Your task to perform on an android device: check android version Image 0: 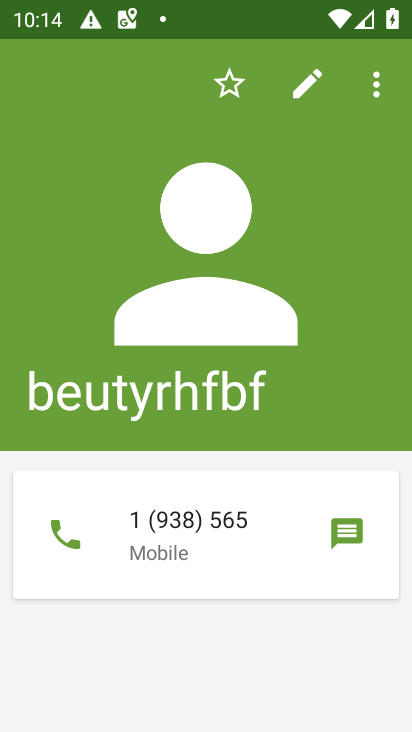
Step 0: press home button
Your task to perform on an android device: check android version Image 1: 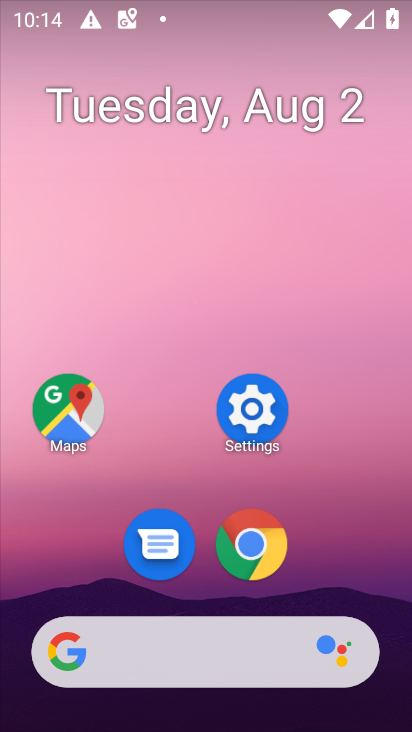
Step 1: click (251, 409)
Your task to perform on an android device: check android version Image 2: 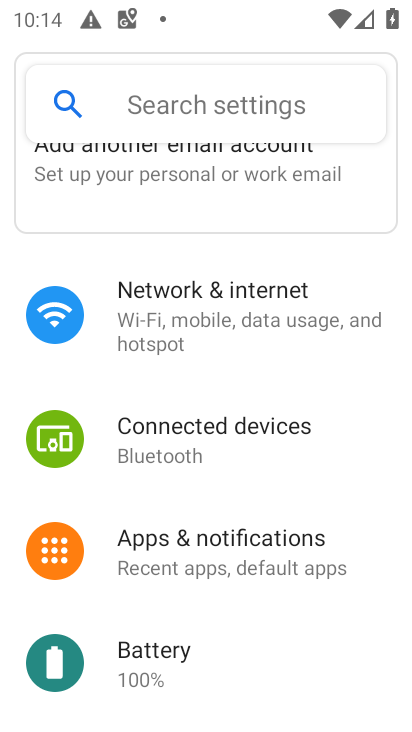
Step 2: drag from (220, 627) to (337, 57)
Your task to perform on an android device: check android version Image 3: 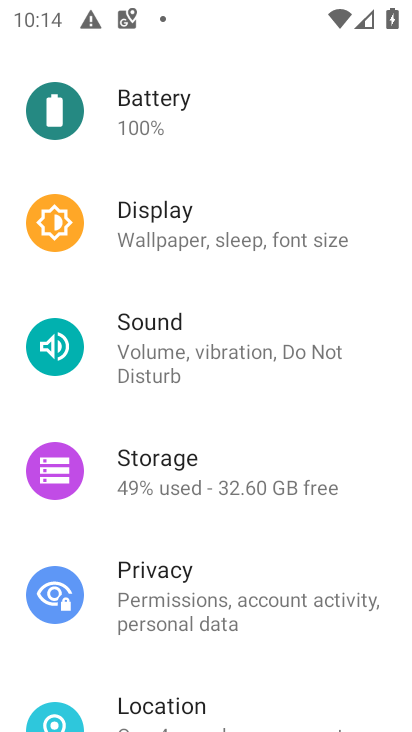
Step 3: drag from (222, 645) to (343, 7)
Your task to perform on an android device: check android version Image 4: 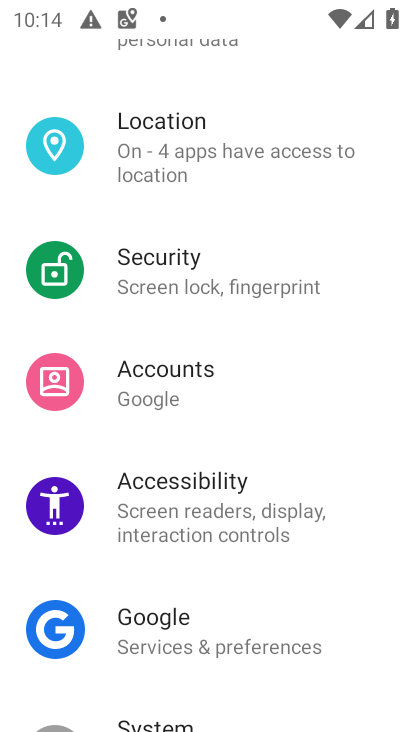
Step 4: drag from (270, 670) to (372, 81)
Your task to perform on an android device: check android version Image 5: 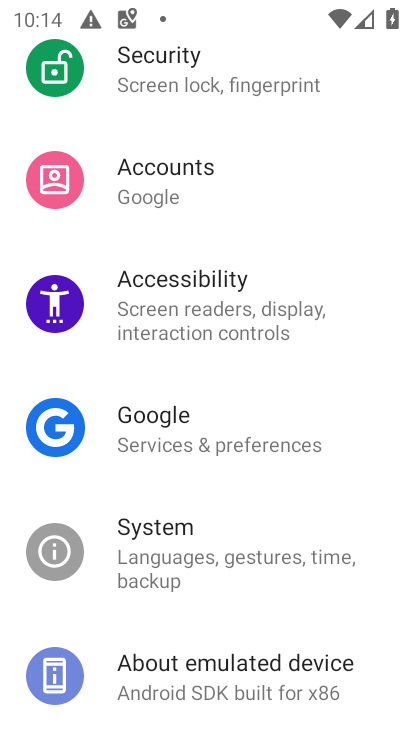
Step 5: click (284, 680)
Your task to perform on an android device: check android version Image 6: 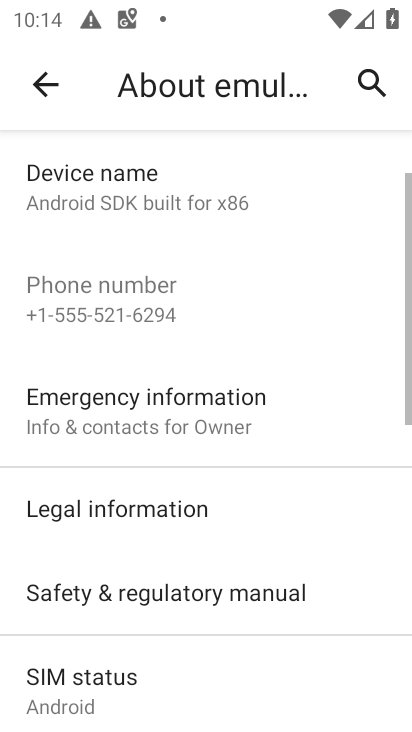
Step 6: drag from (240, 669) to (283, 211)
Your task to perform on an android device: check android version Image 7: 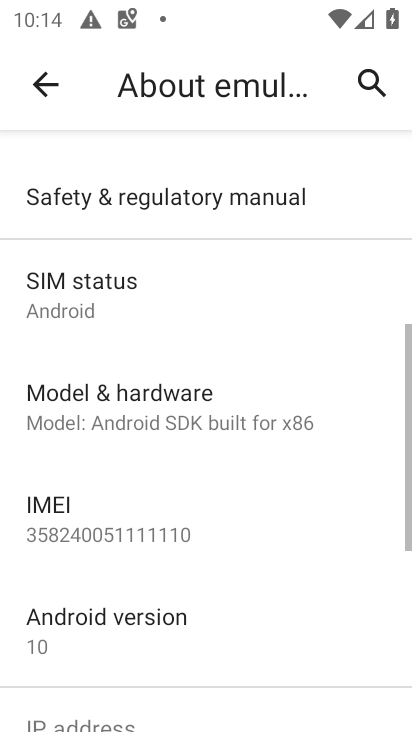
Step 7: drag from (247, 550) to (305, 225)
Your task to perform on an android device: check android version Image 8: 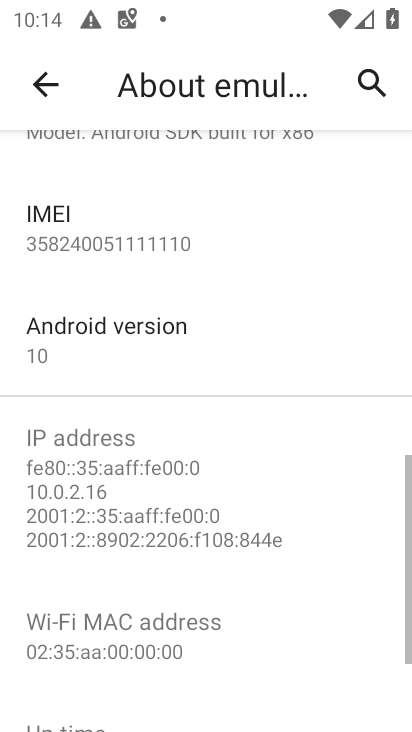
Step 8: click (118, 327)
Your task to perform on an android device: check android version Image 9: 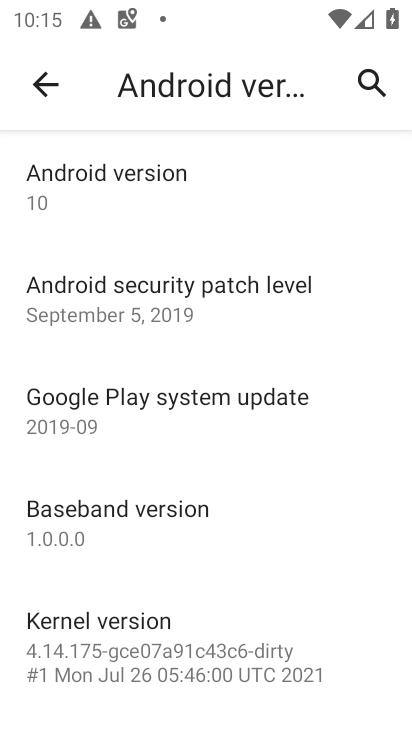
Step 9: task complete